Your task to perform on an android device: View the shopping cart on walmart. Image 0: 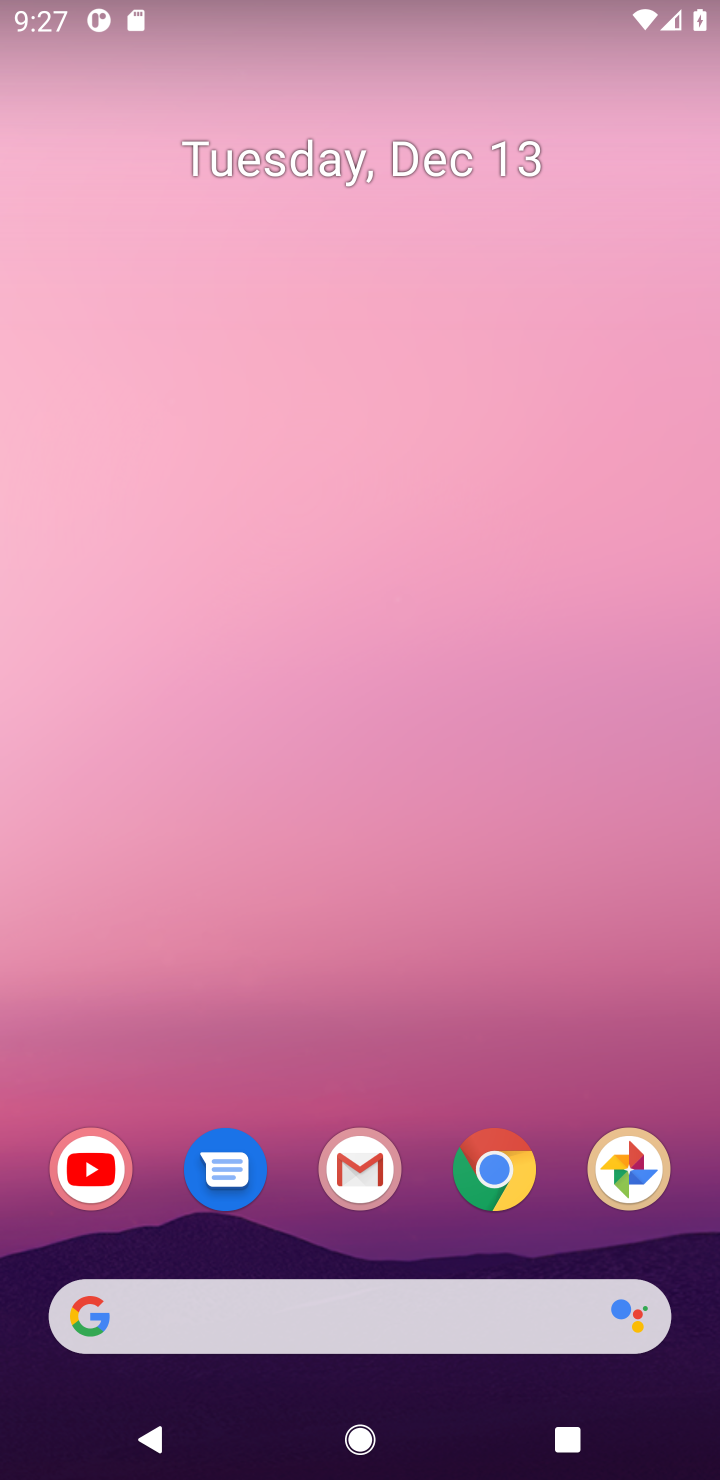
Step 0: click (473, 1206)
Your task to perform on an android device: View the shopping cart on walmart. Image 1: 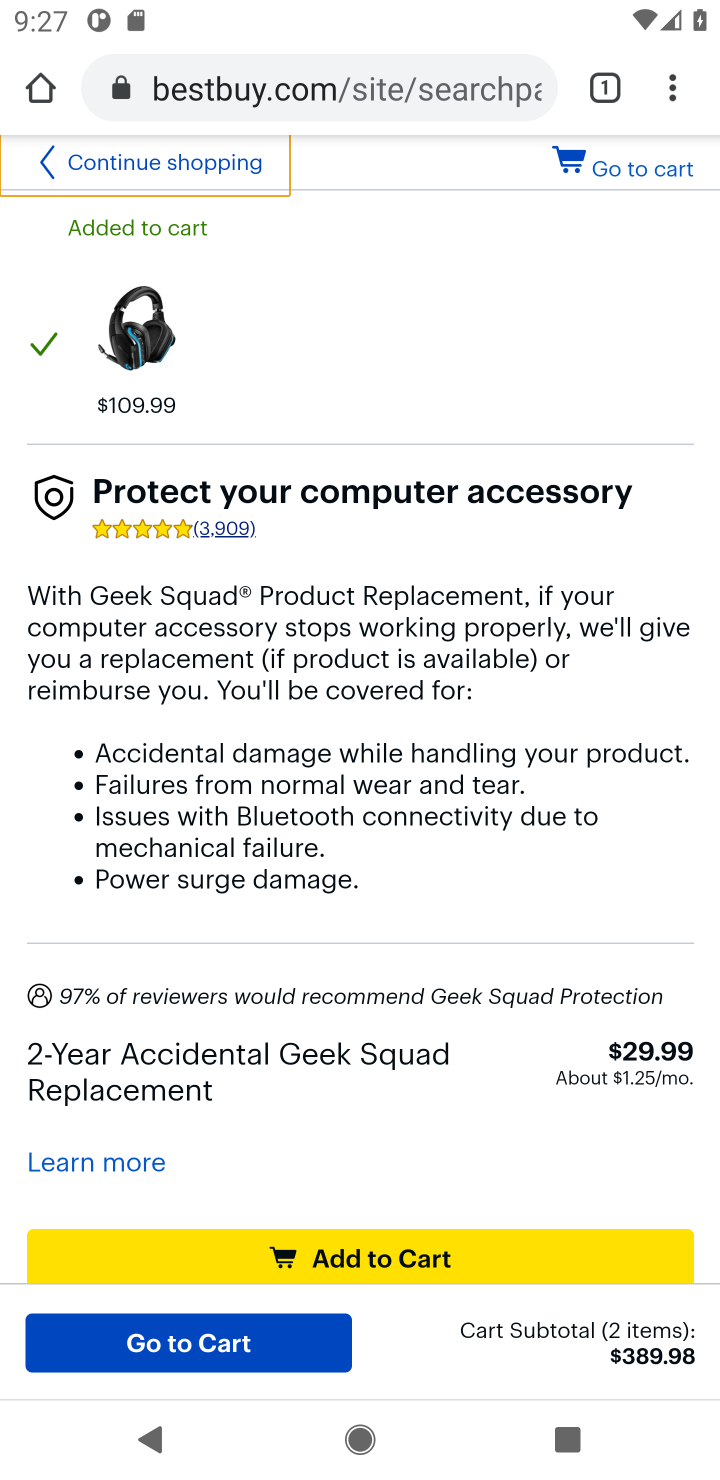
Step 1: click (313, 104)
Your task to perform on an android device: View the shopping cart on walmart. Image 2: 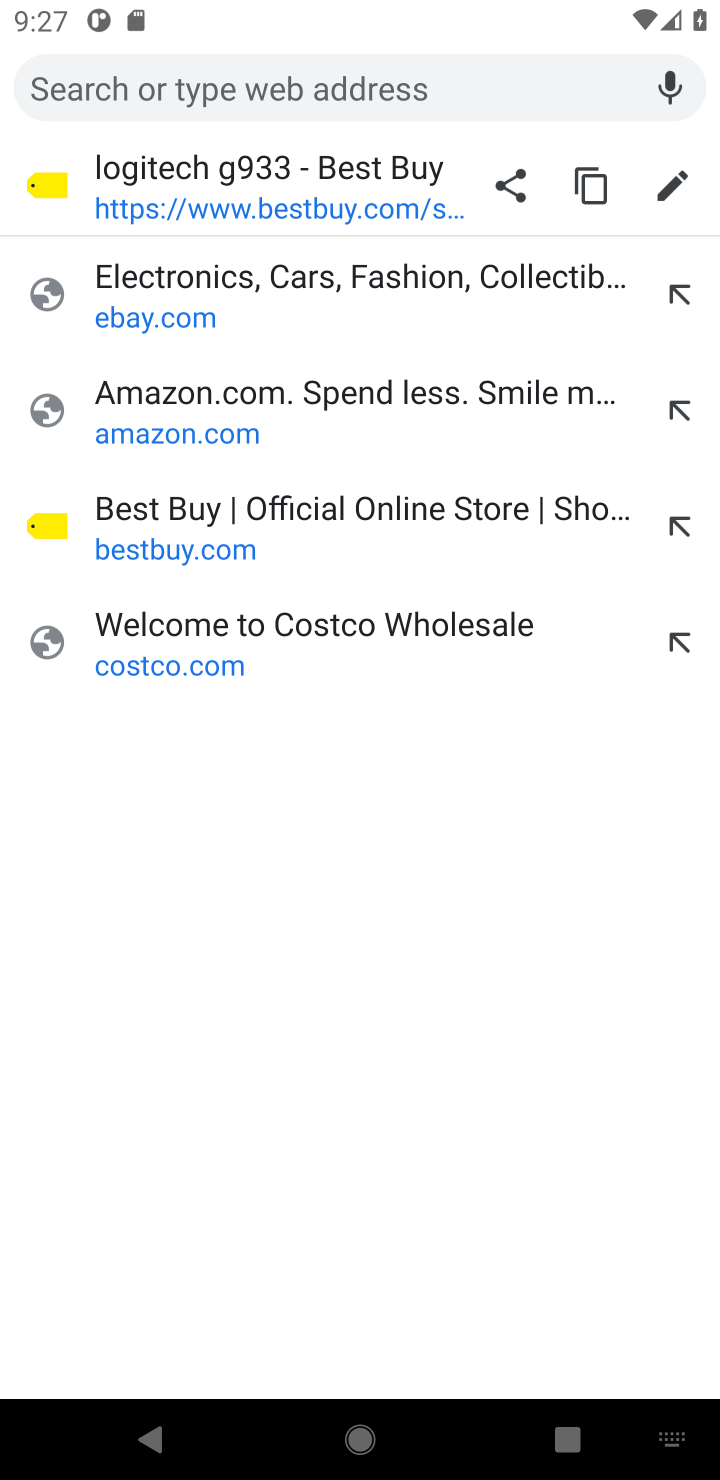
Step 2: type "walmart"
Your task to perform on an android device: View the shopping cart on walmart. Image 3: 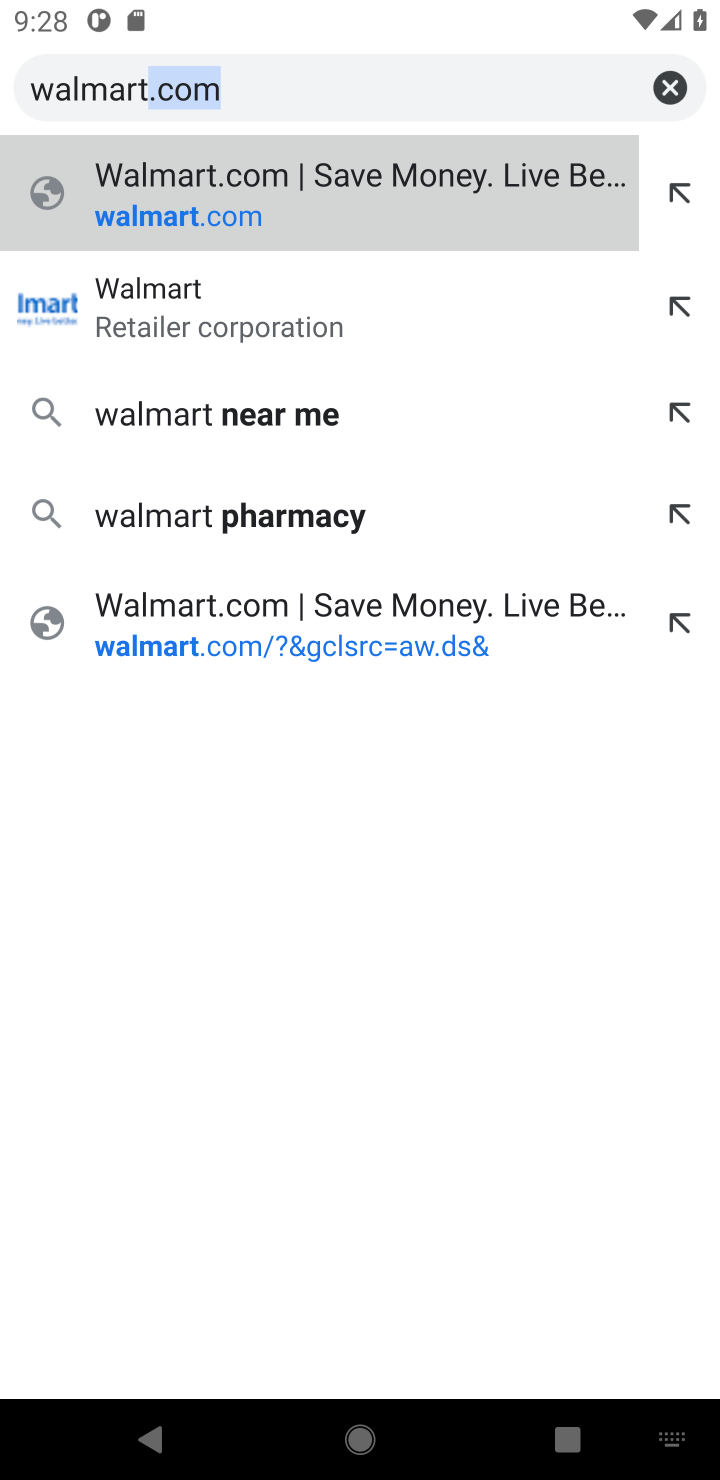
Step 3: click (321, 167)
Your task to perform on an android device: View the shopping cart on walmart. Image 4: 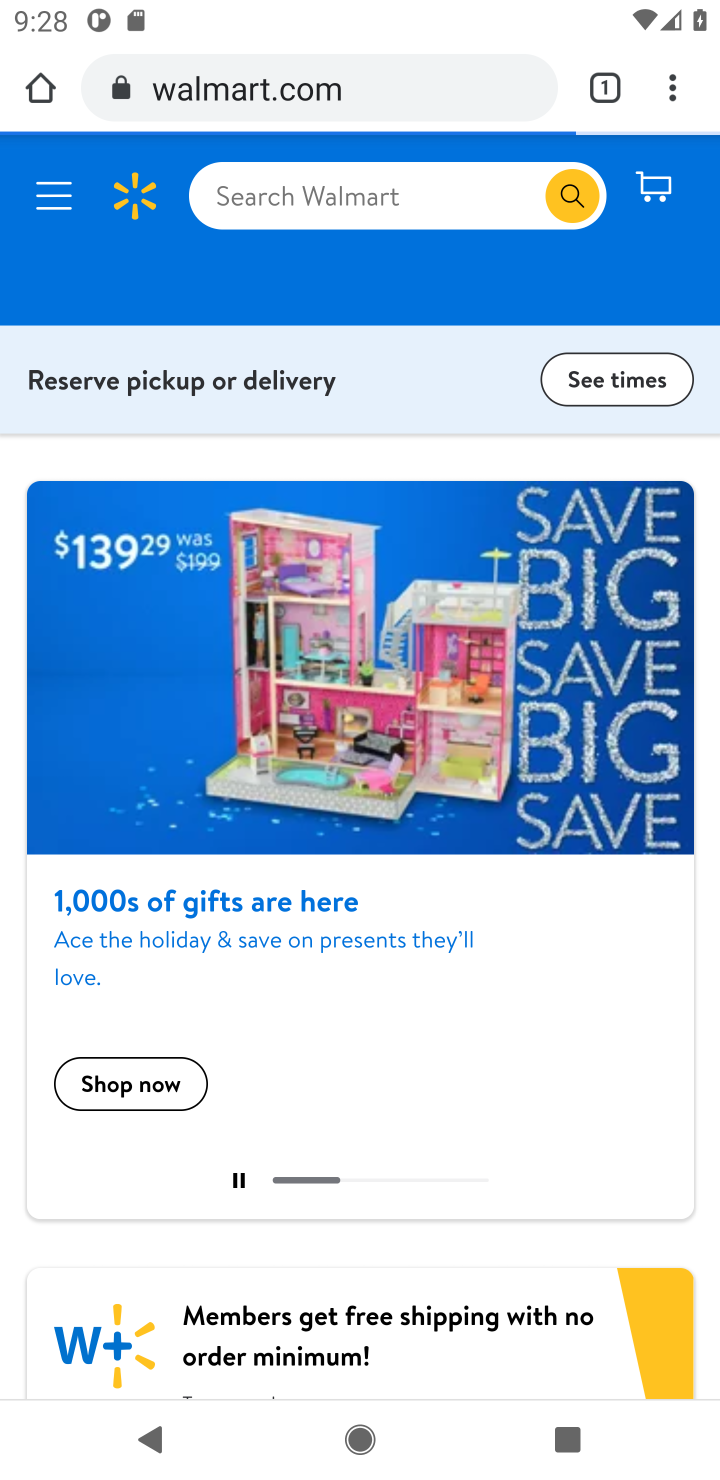
Step 4: click (384, 206)
Your task to perform on an android device: View the shopping cart on walmart. Image 5: 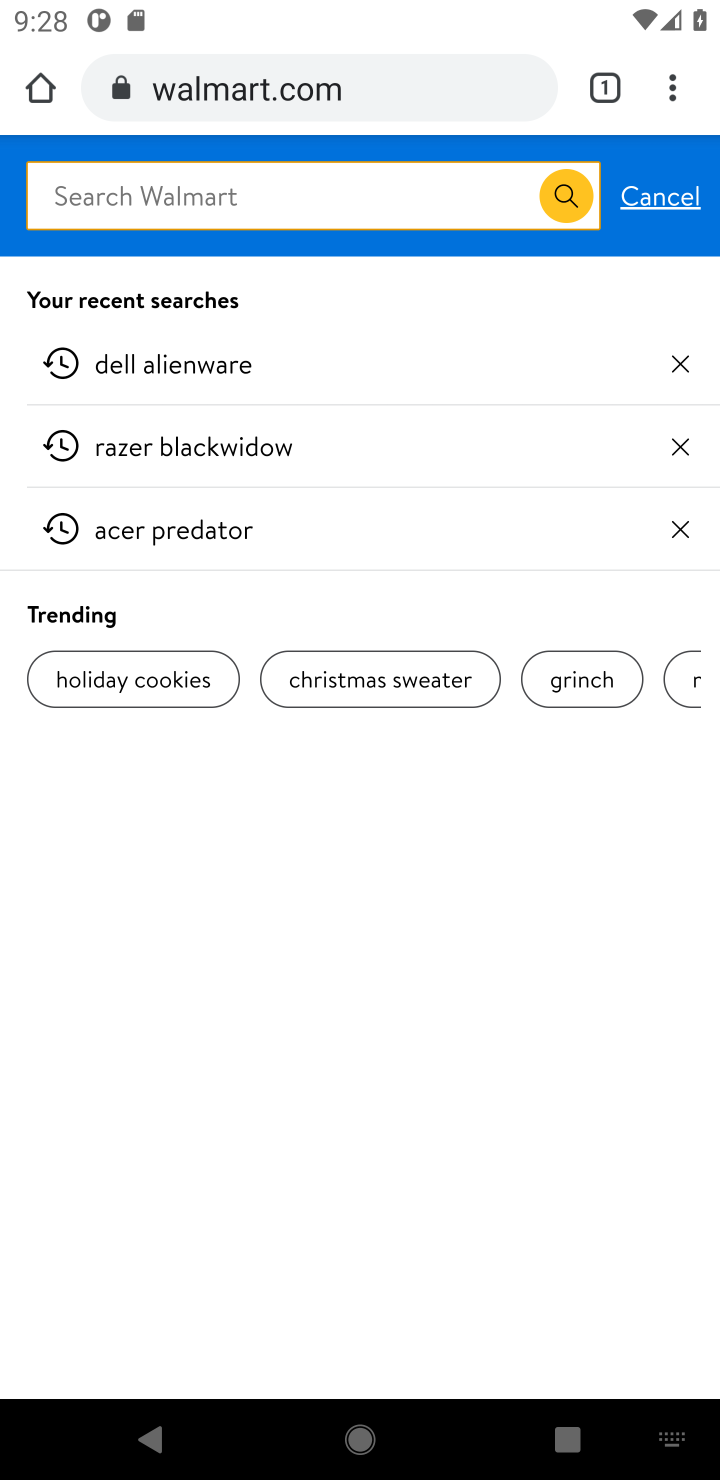
Step 5: click (663, 215)
Your task to perform on an android device: View the shopping cart on walmart. Image 6: 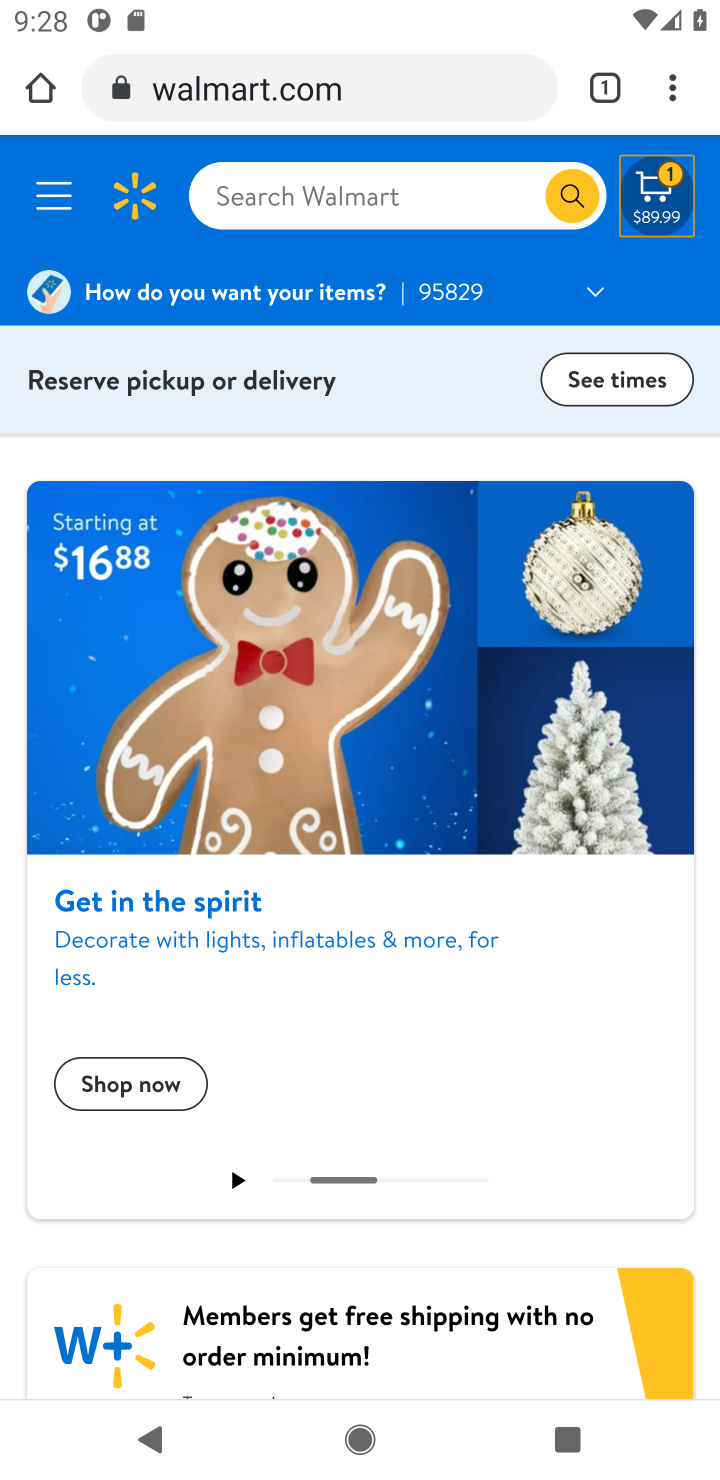
Step 6: click (663, 215)
Your task to perform on an android device: View the shopping cart on walmart. Image 7: 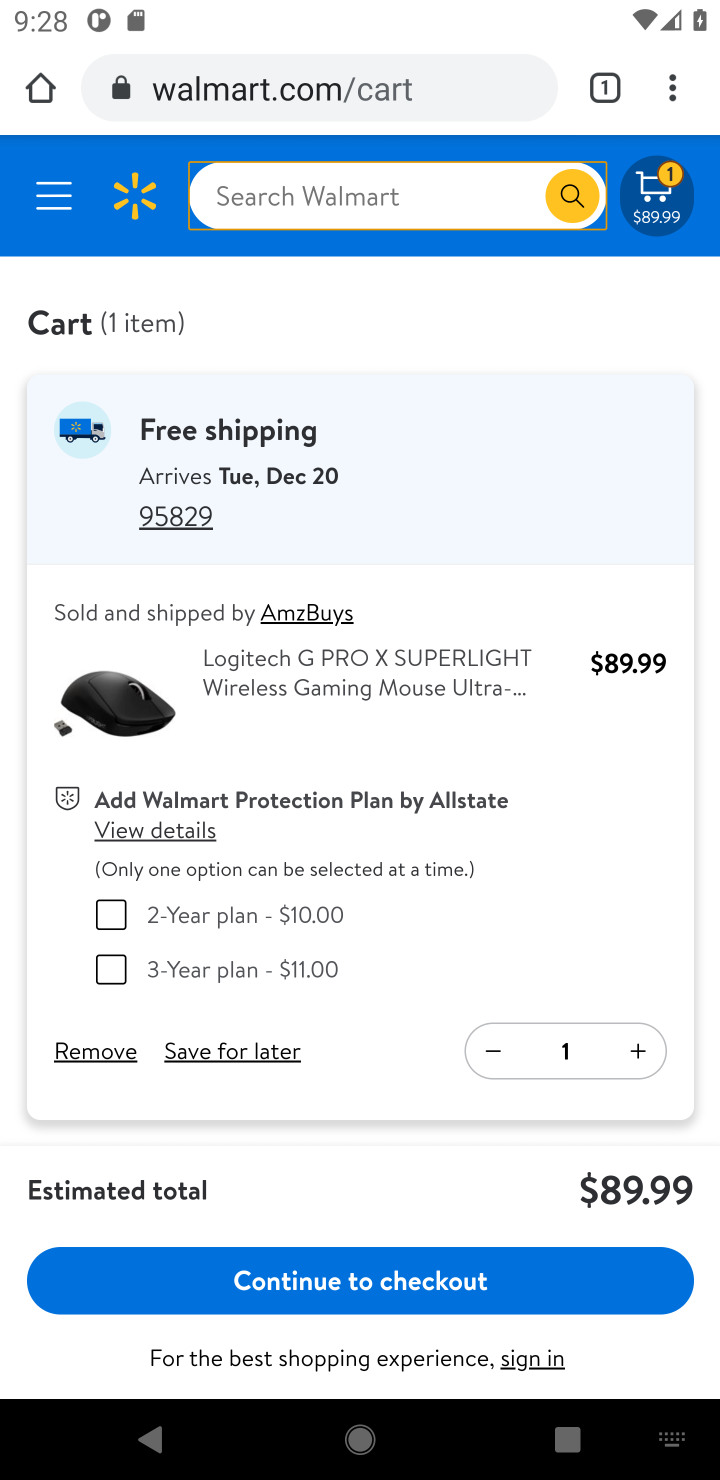
Step 7: drag from (335, 1080) to (359, 426)
Your task to perform on an android device: View the shopping cart on walmart. Image 8: 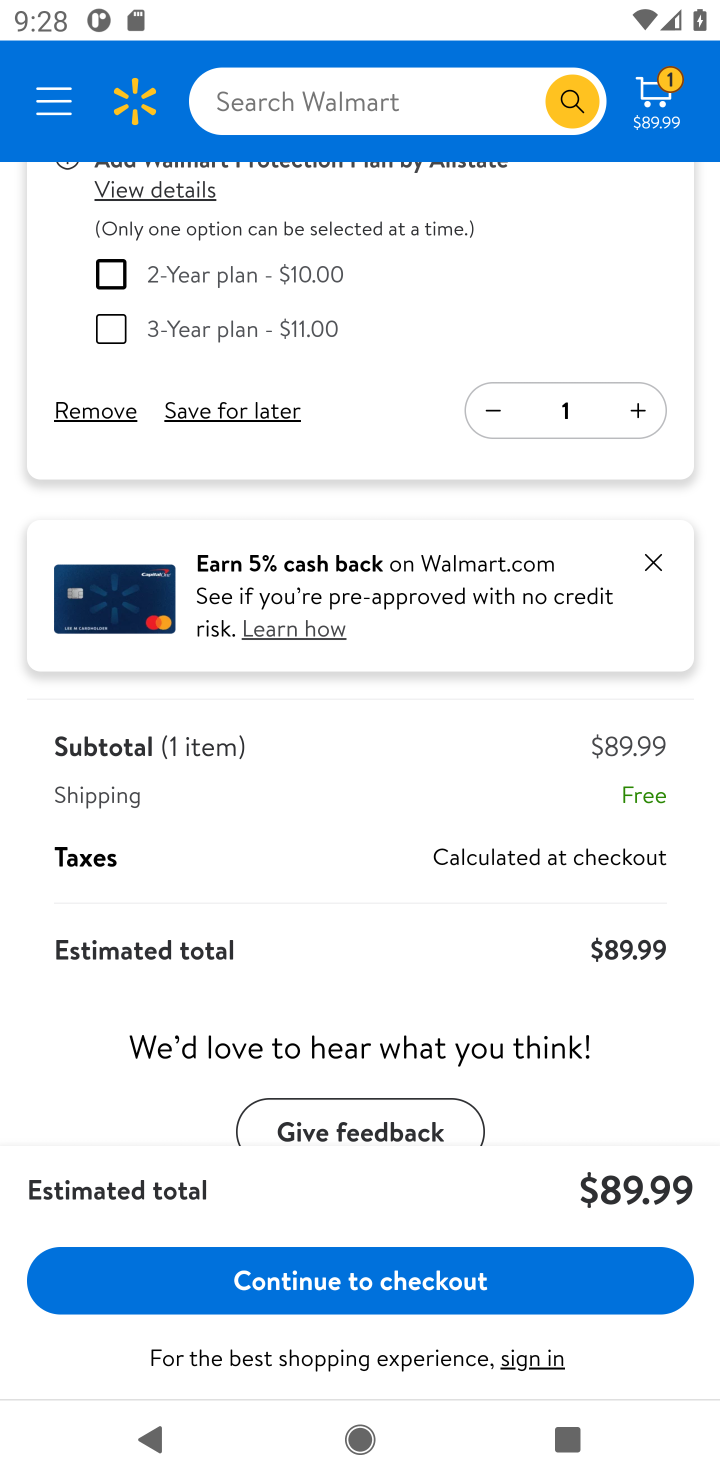
Step 8: click (457, 1150)
Your task to perform on an android device: View the shopping cart on walmart. Image 9: 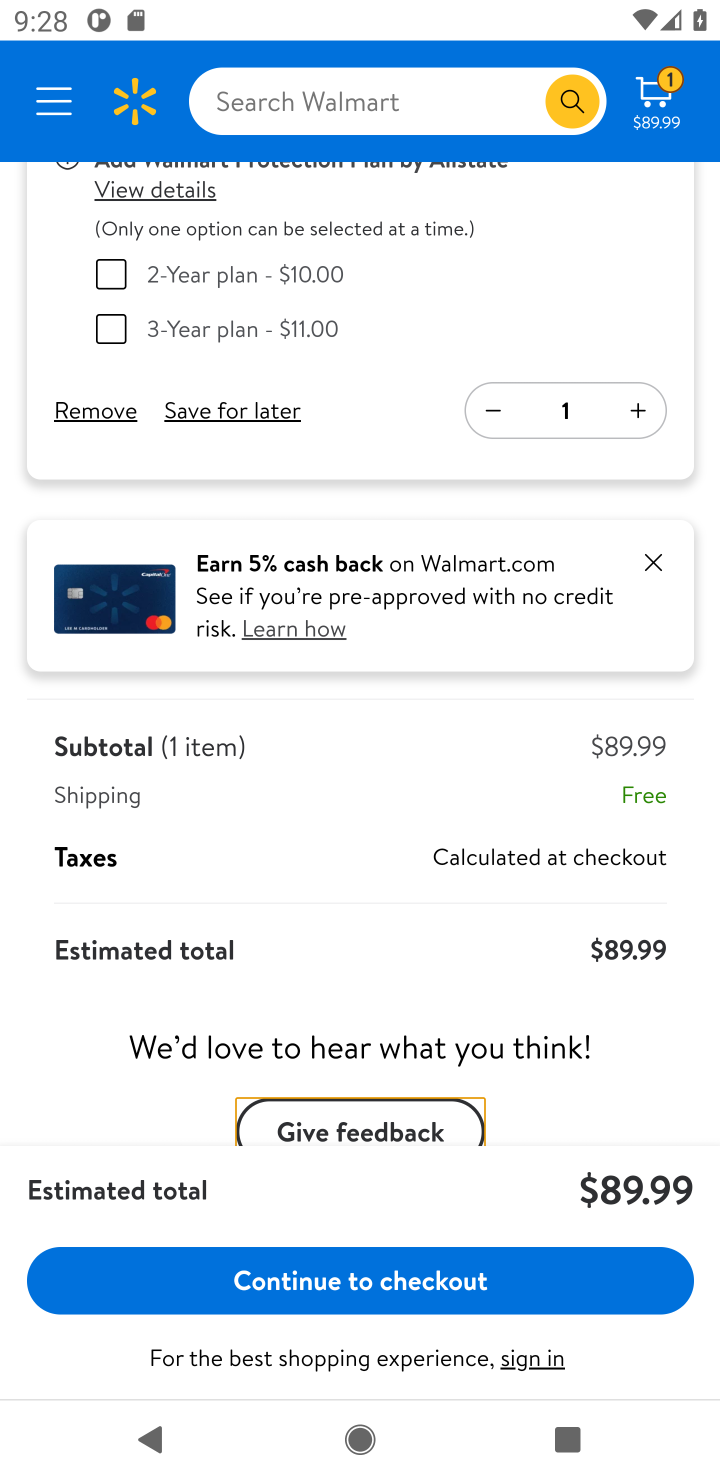
Step 9: task complete